Your task to perform on an android device: Open Google Maps Image 0: 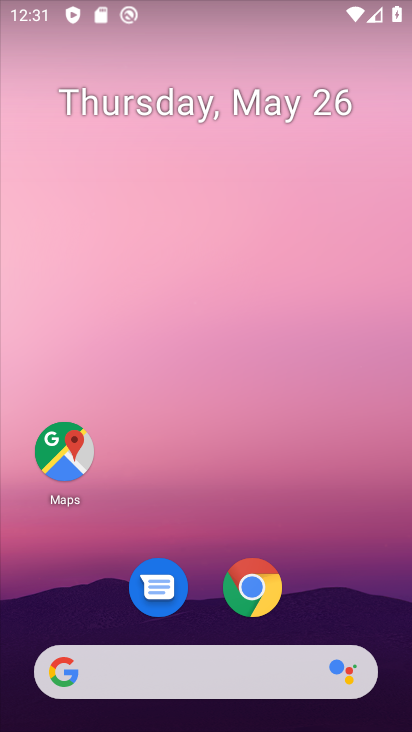
Step 0: drag from (371, 566) to (384, 199)
Your task to perform on an android device: Open Google Maps Image 1: 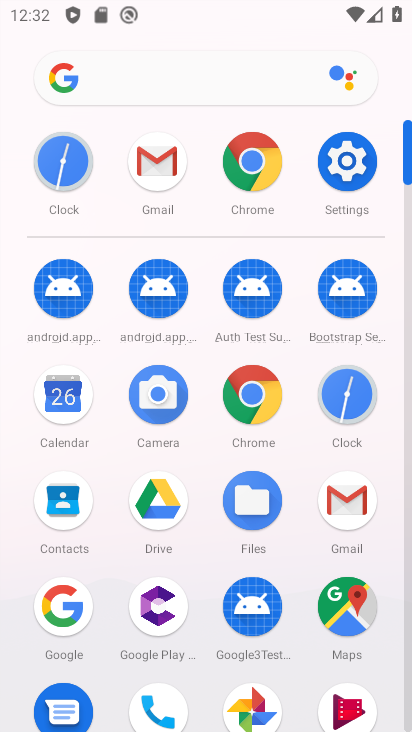
Step 1: click (350, 611)
Your task to perform on an android device: Open Google Maps Image 2: 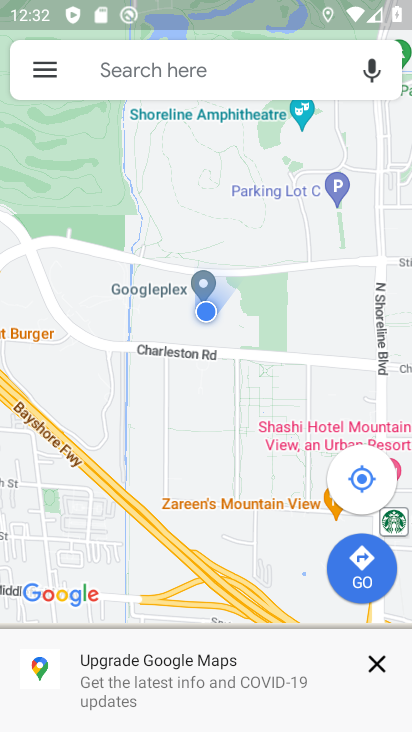
Step 2: task complete